Your task to perform on an android device: Open calendar and show me the fourth week of next month Image 0: 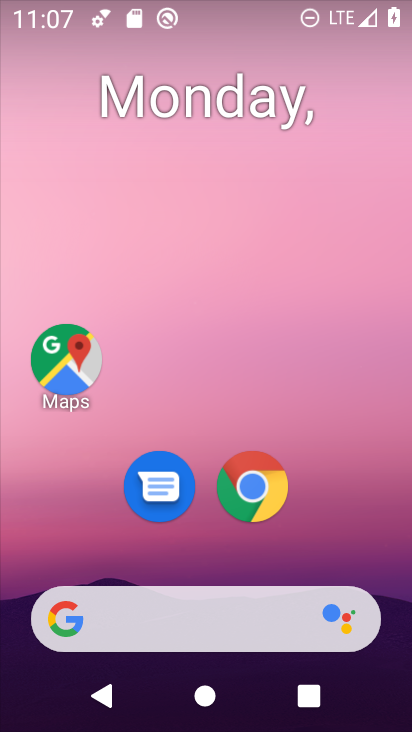
Step 0: press home button
Your task to perform on an android device: Open calendar and show me the fourth week of next month Image 1: 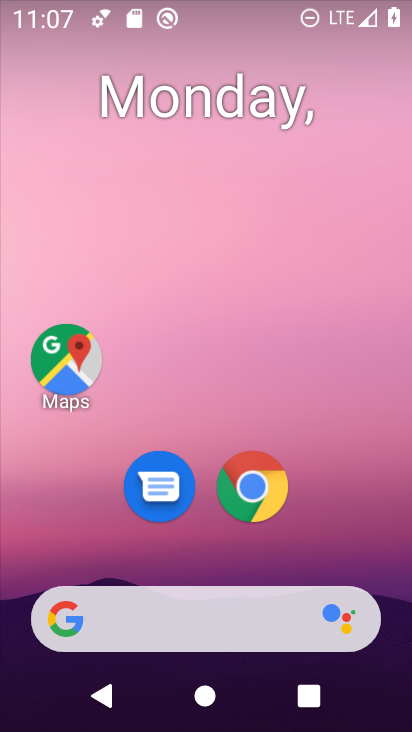
Step 1: drag from (63, 506) to (247, 205)
Your task to perform on an android device: Open calendar and show me the fourth week of next month Image 2: 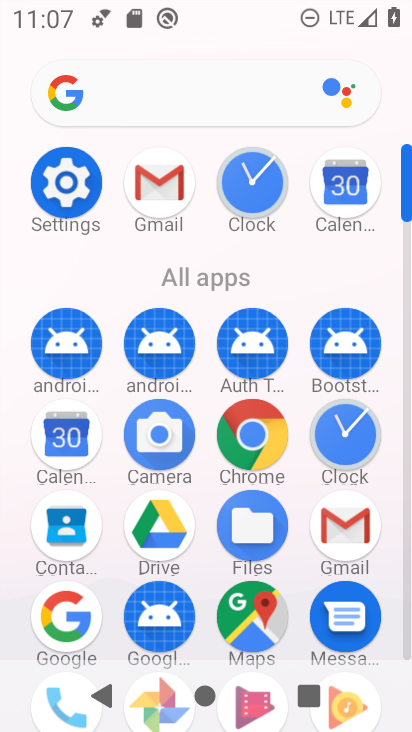
Step 2: click (68, 455)
Your task to perform on an android device: Open calendar and show me the fourth week of next month Image 3: 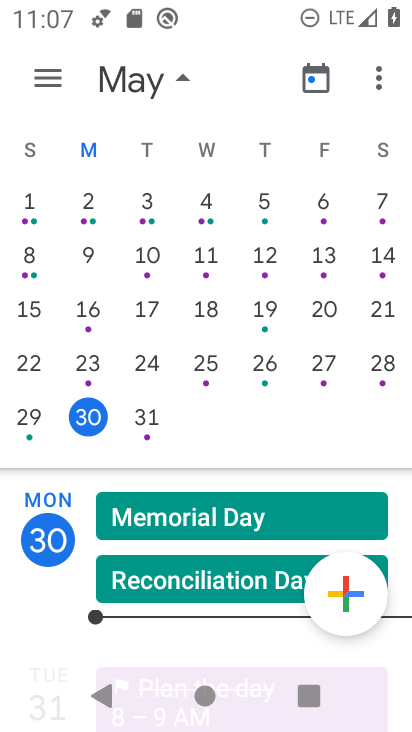
Step 3: drag from (408, 256) to (1, 523)
Your task to perform on an android device: Open calendar and show me the fourth week of next month Image 4: 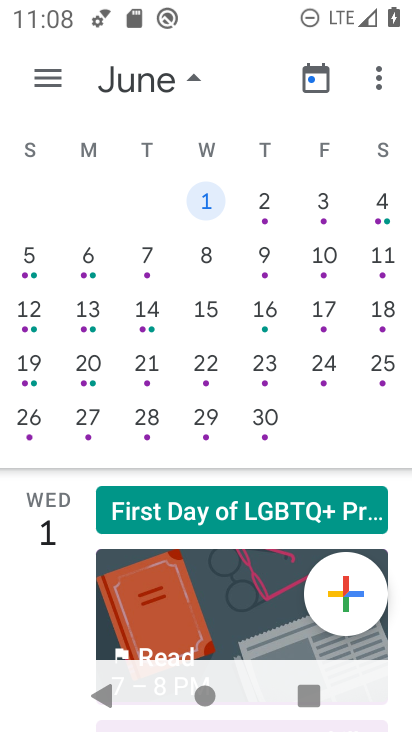
Step 4: click (201, 257)
Your task to perform on an android device: Open calendar and show me the fourth week of next month Image 5: 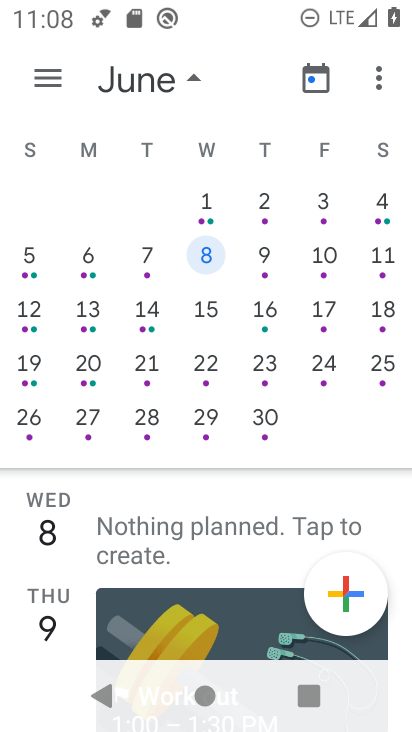
Step 5: click (203, 310)
Your task to perform on an android device: Open calendar and show me the fourth week of next month Image 6: 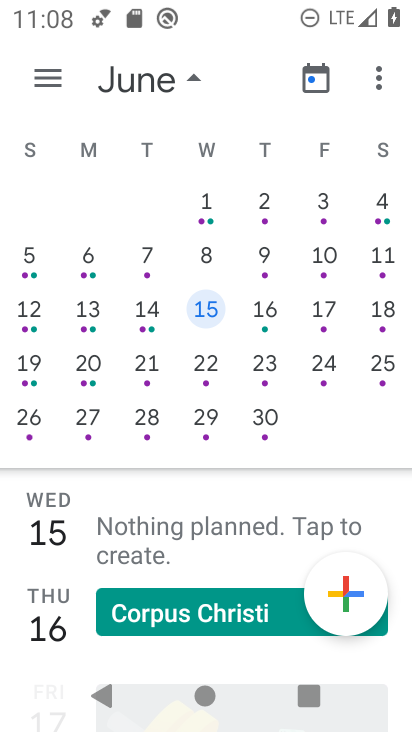
Step 6: click (204, 359)
Your task to perform on an android device: Open calendar and show me the fourth week of next month Image 7: 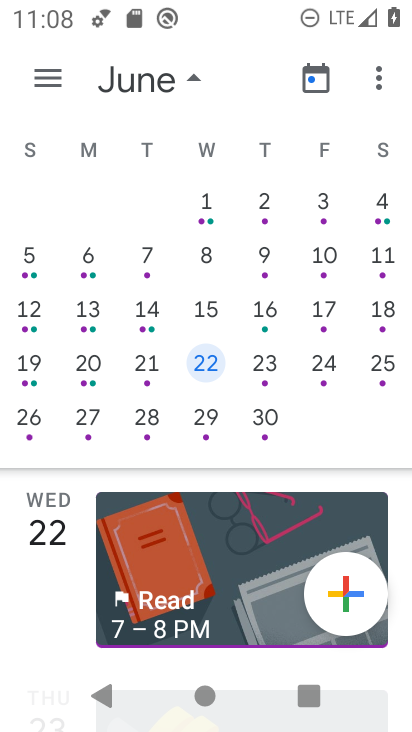
Step 7: click (126, 370)
Your task to perform on an android device: Open calendar and show me the fourth week of next month Image 8: 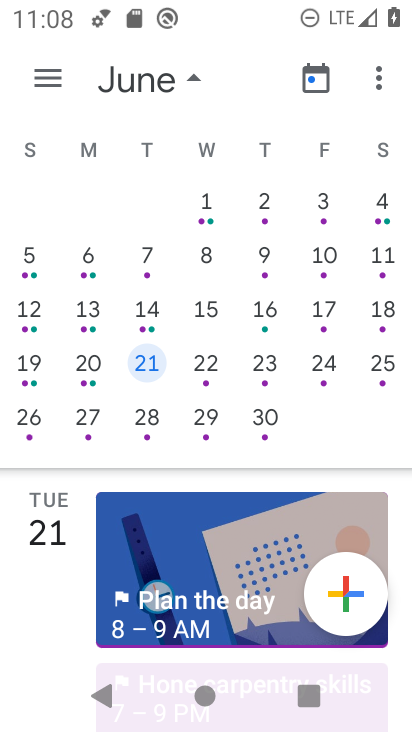
Step 8: click (69, 375)
Your task to perform on an android device: Open calendar and show me the fourth week of next month Image 9: 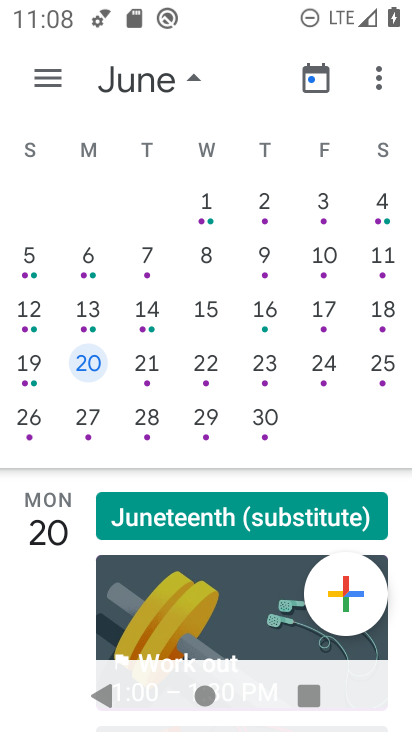
Step 9: click (258, 372)
Your task to perform on an android device: Open calendar and show me the fourth week of next month Image 10: 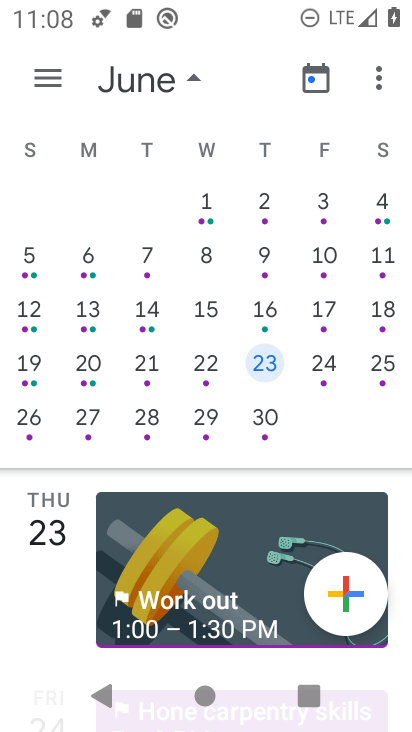
Step 10: click (330, 371)
Your task to perform on an android device: Open calendar and show me the fourth week of next month Image 11: 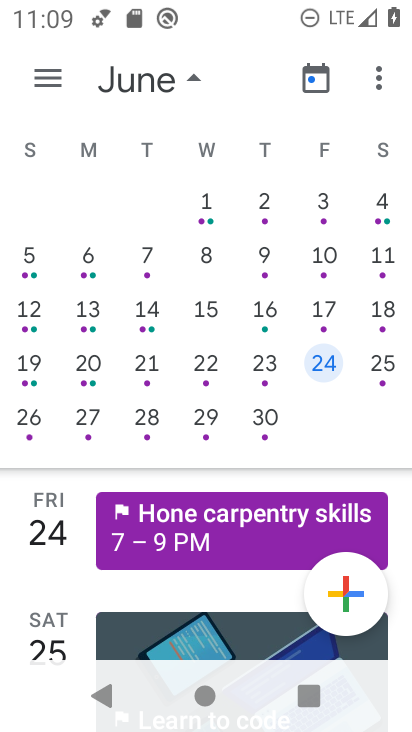
Step 11: task complete